Your task to perform on an android device: What's the weather going to be this weekend? Image 0: 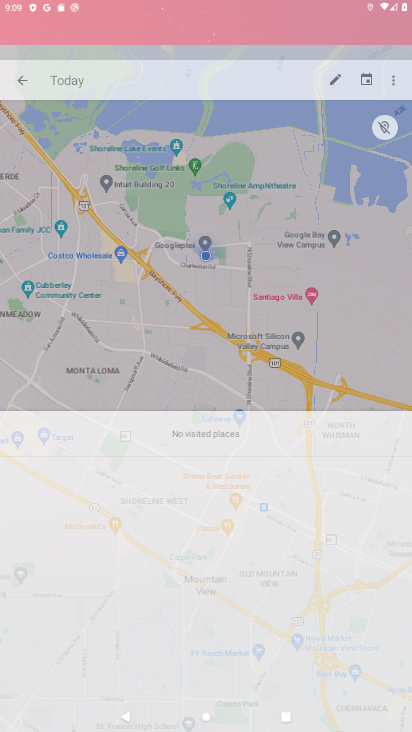
Step 0: click (123, 579)
Your task to perform on an android device: What's the weather going to be this weekend? Image 1: 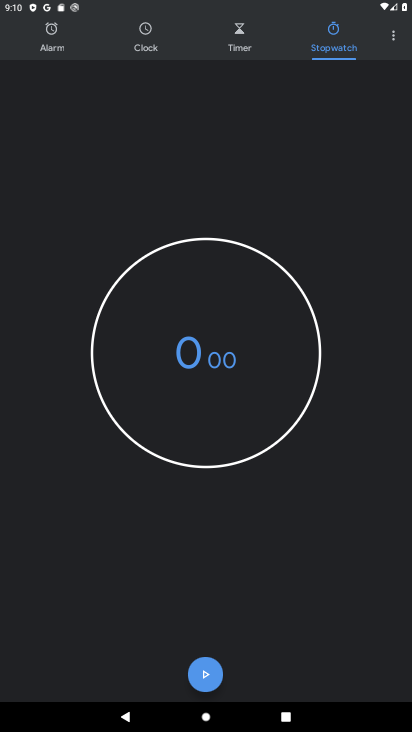
Step 1: press home button
Your task to perform on an android device: What's the weather going to be this weekend? Image 2: 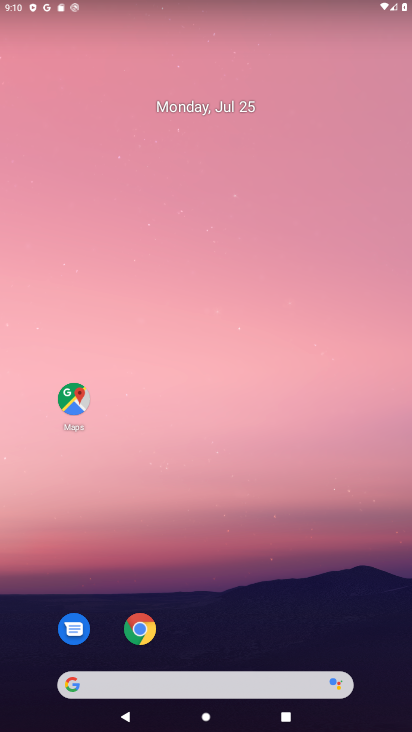
Step 2: click (181, 691)
Your task to perform on an android device: What's the weather going to be this weekend? Image 3: 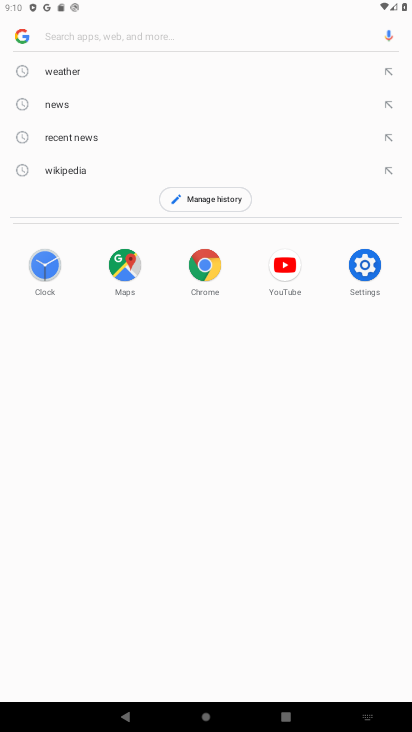
Step 3: click (130, 77)
Your task to perform on an android device: What's the weather going to be this weekend? Image 4: 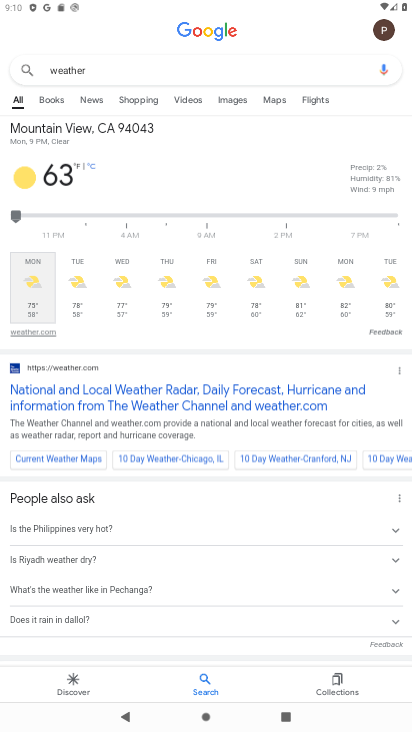
Step 4: task complete